Your task to perform on an android device: change notification settings in the gmail app Image 0: 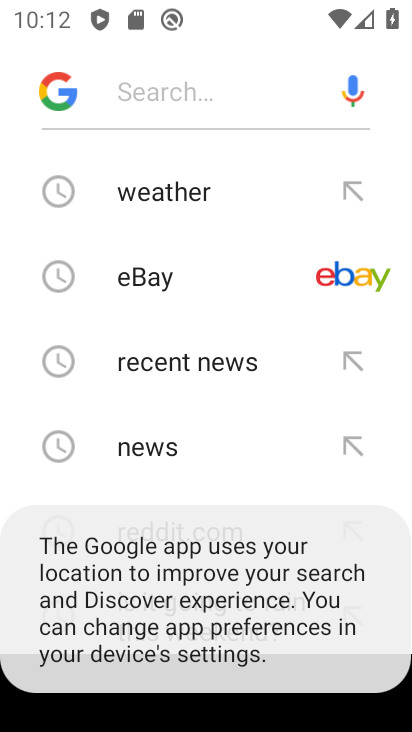
Step 0: press back button
Your task to perform on an android device: change notification settings in the gmail app Image 1: 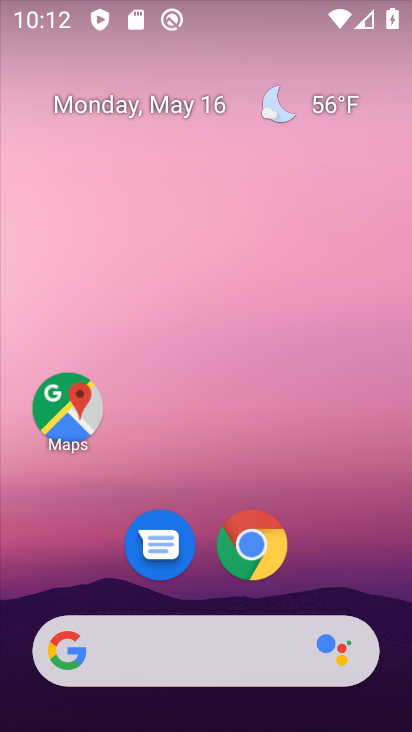
Step 1: drag from (184, 611) to (263, 8)
Your task to perform on an android device: change notification settings in the gmail app Image 2: 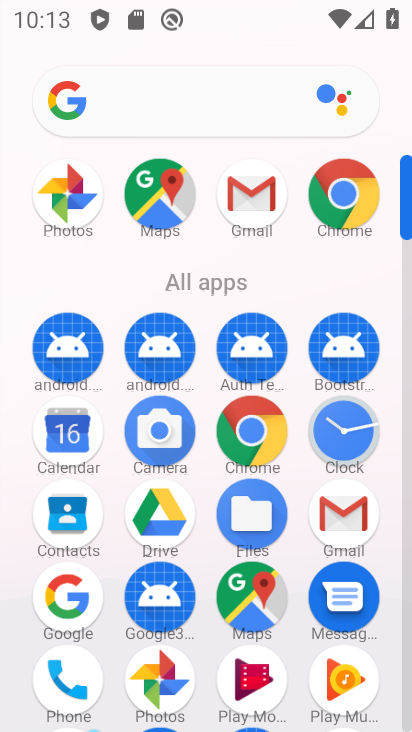
Step 2: click (338, 513)
Your task to perform on an android device: change notification settings in the gmail app Image 3: 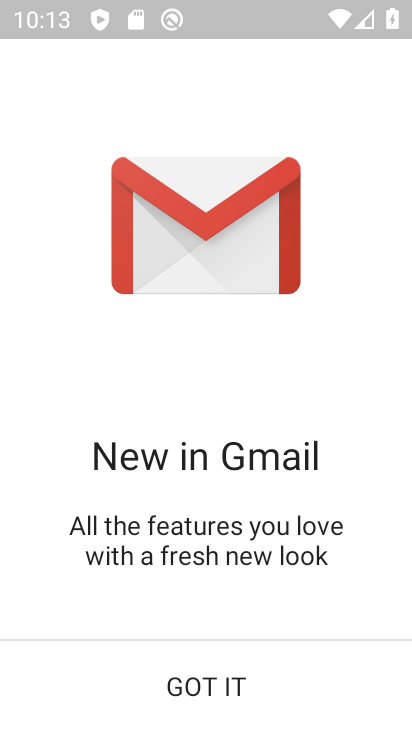
Step 3: click (189, 682)
Your task to perform on an android device: change notification settings in the gmail app Image 4: 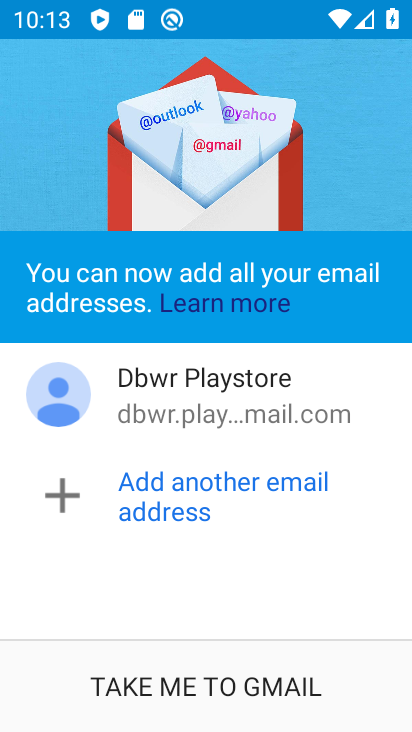
Step 4: click (186, 674)
Your task to perform on an android device: change notification settings in the gmail app Image 5: 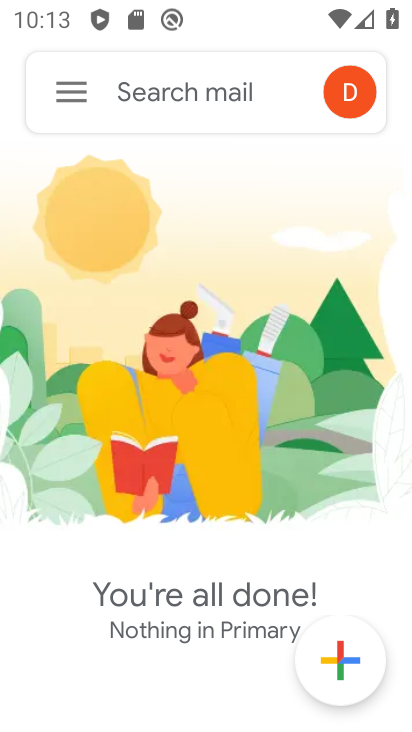
Step 5: click (60, 102)
Your task to perform on an android device: change notification settings in the gmail app Image 6: 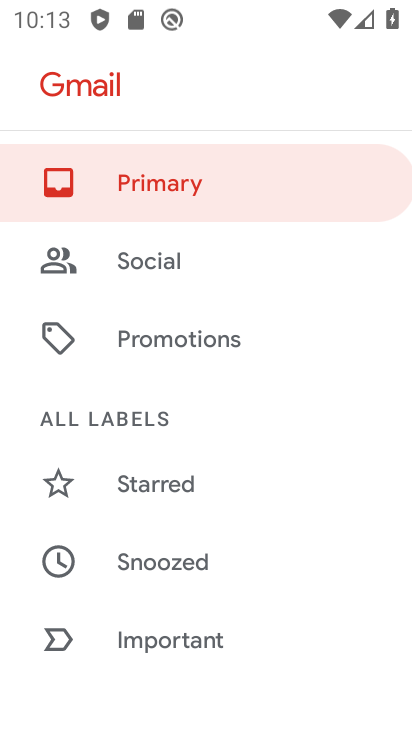
Step 6: drag from (133, 605) to (97, 110)
Your task to perform on an android device: change notification settings in the gmail app Image 7: 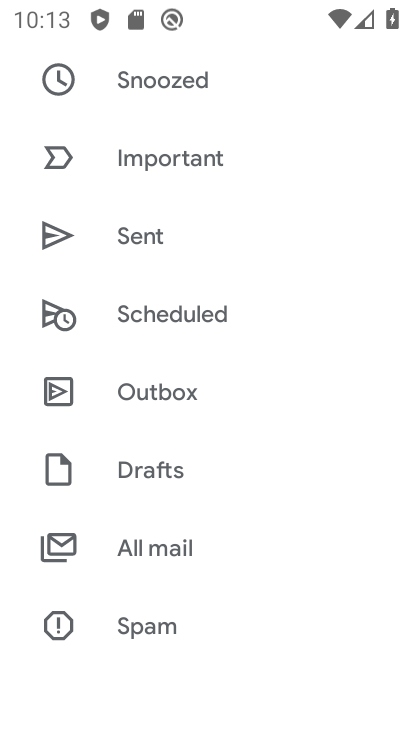
Step 7: drag from (190, 638) to (105, 169)
Your task to perform on an android device: change notification settings in the gmail app Image 8: 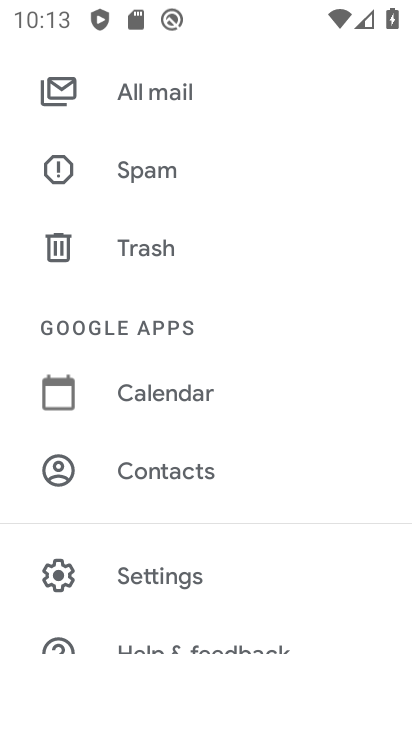
Step 8: click (113, 581)
Your task to perform on an android device: change notification settings in the gmail app Image 9: 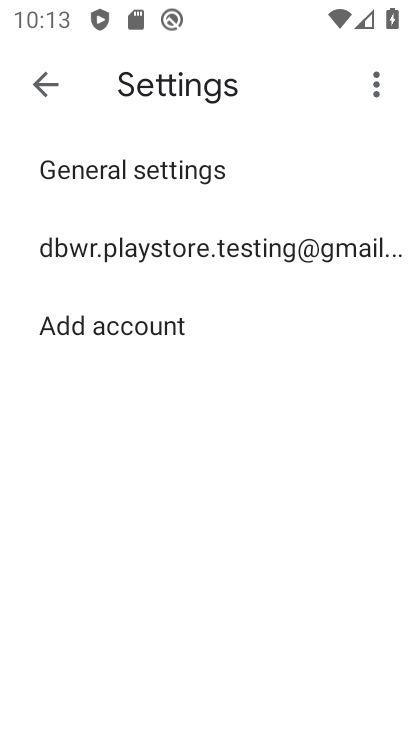
Step 9: click (122, 180)
Your task to perform on an android device: change notification settings in the gmail app Image 10: 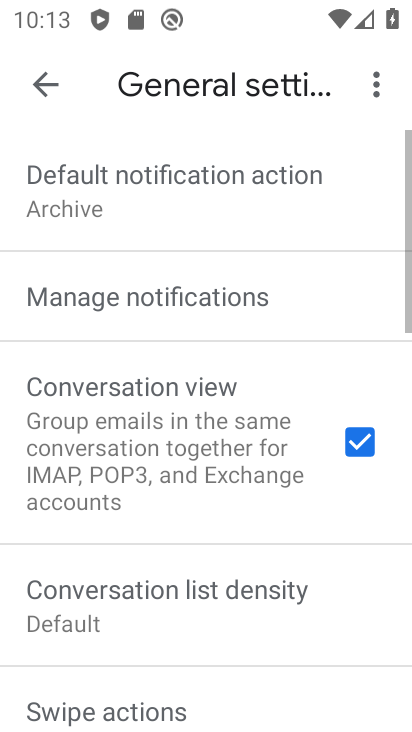
Step 10: click (136, 317)
Your task to perform on an android device: change notification settings in the gmail app Image 11: 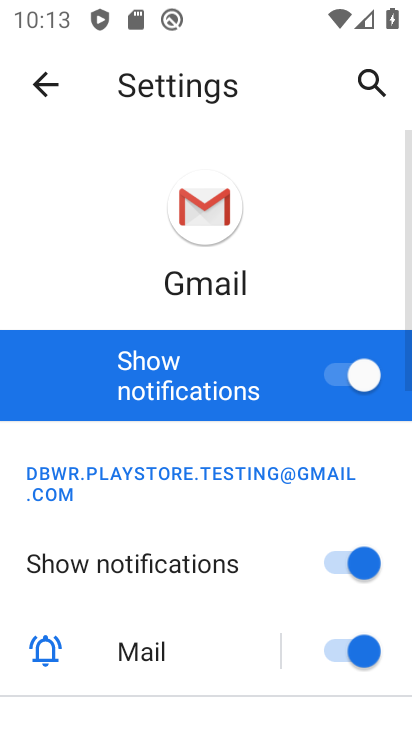
Step 11: click (362, 370)
Your task to perform on an android device: change notification settings in the gmail app Image 12: 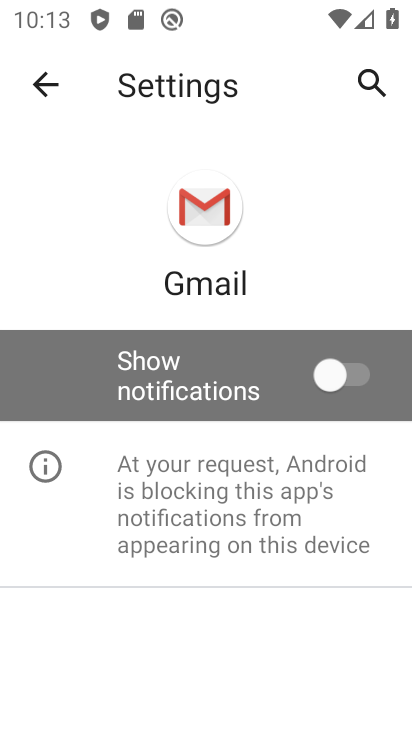
Step 12: task complete